Your task to perform on an android device: Open Google Chrome and click the shortcut for Amazon.com Image 0: 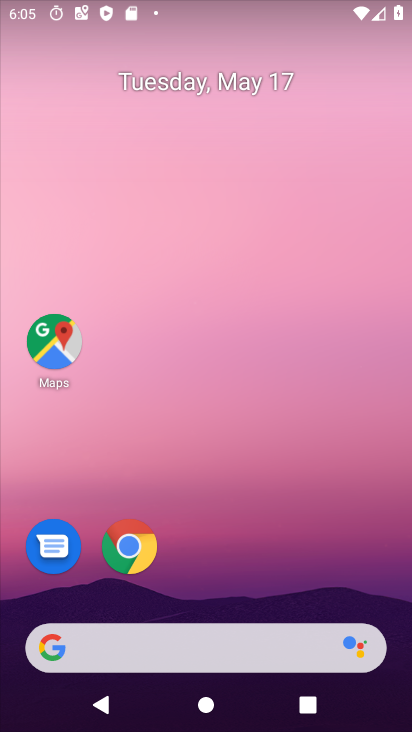
Step 0: drag from (259, 589) to (291, 412)
Your task to perform on an android device: Open Google Chrome and click the shortcut for Amazon.com Image 1: 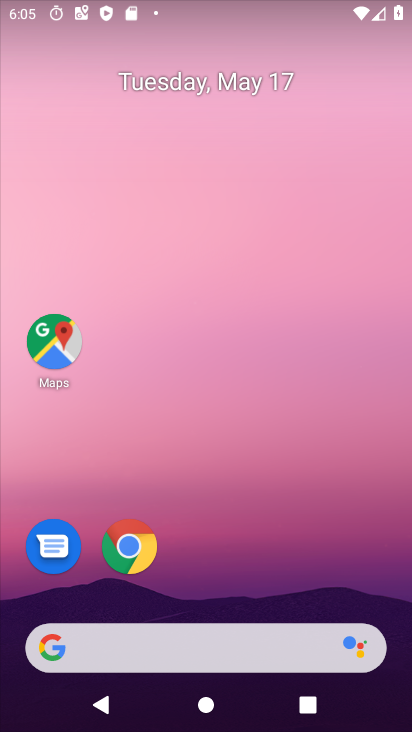
Step 1: drag from (216, 420) to (228, 176)
Your task to perform on an android device: Open Google Chrome and click the shortcut for Amazon.com Image 2: 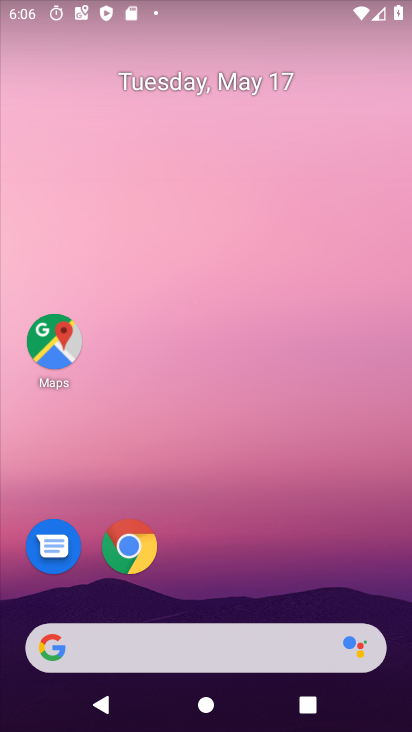
Step 2: drag from (228, 529) to (239, 37)
Your task to perform on an android device: Open Google Chrome and click the shortcut for Amazon.com Image 3: 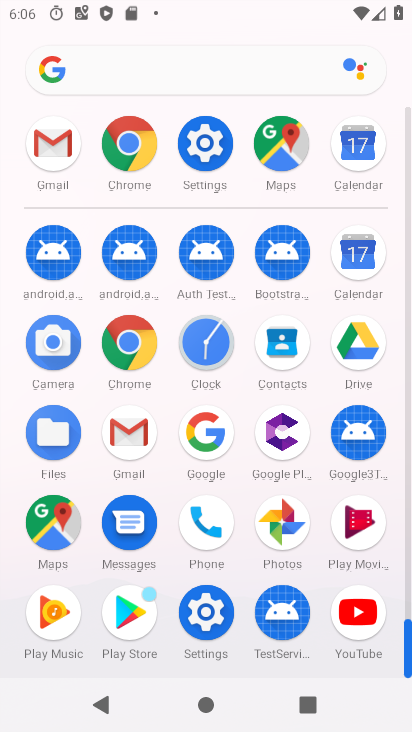
Step 3: click (150, 185)
Your task to perform on an android device: Open Google Chrome and click the shortcut for Amazon.com Image 4: 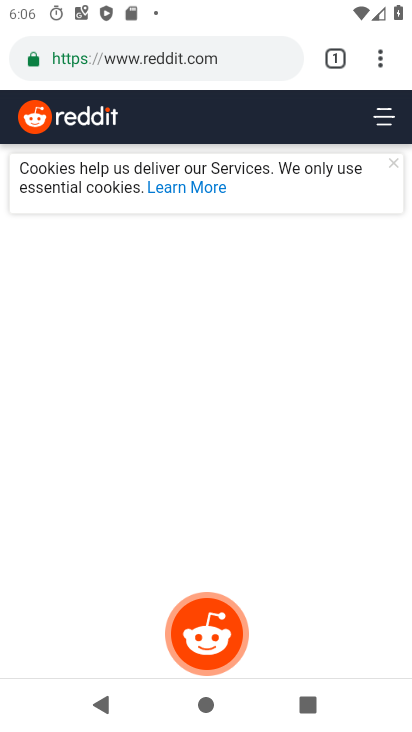
Step 4: press back button
Your task to perform on an android device: Open Google Chrome and click the shortcut for Amazon.com Image 5: 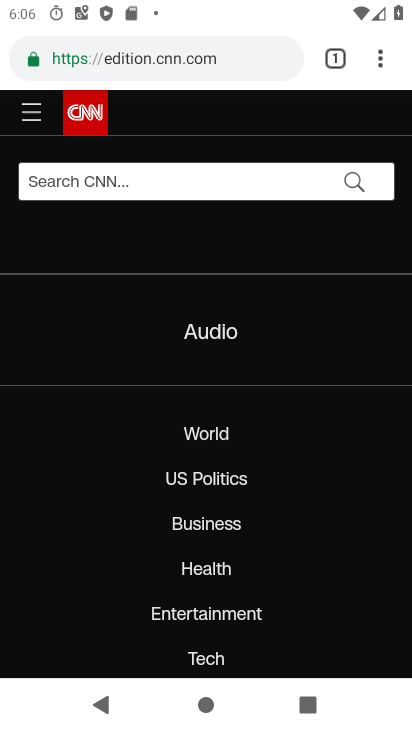
Step 5: press back button
Your task to perform on an android device: Open Google Chrome and click the shortcut for Amazon.com Image 6: 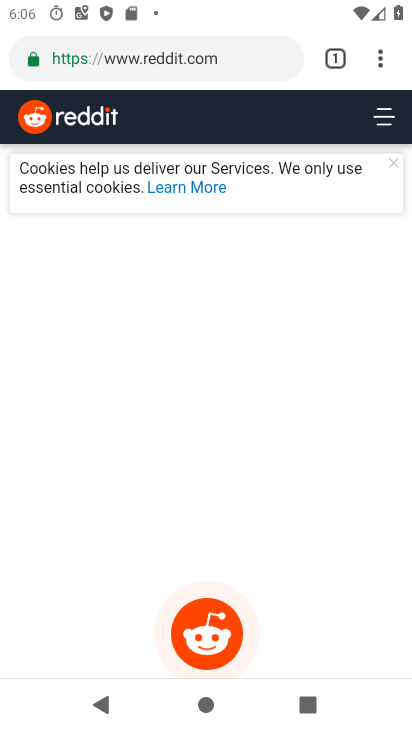
Step 6: press back button
Your task to perform on an android device: Open Google Chrome and click the shortcut for Amazon.com Image 7: 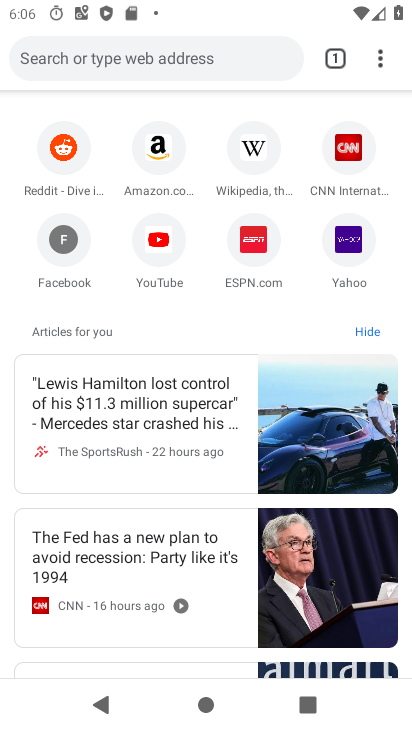
Step 7: click (153, 172)
Your task to perform on an android device: Open Google Chrome and click the shortcut for Amazon.com Image 8: 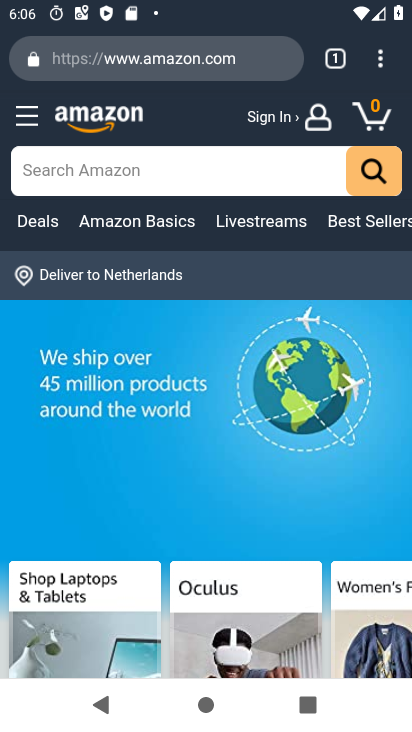
Step 8: task complete